Your task to perform on an android device: What's the latest news in cosmology? Image 0: 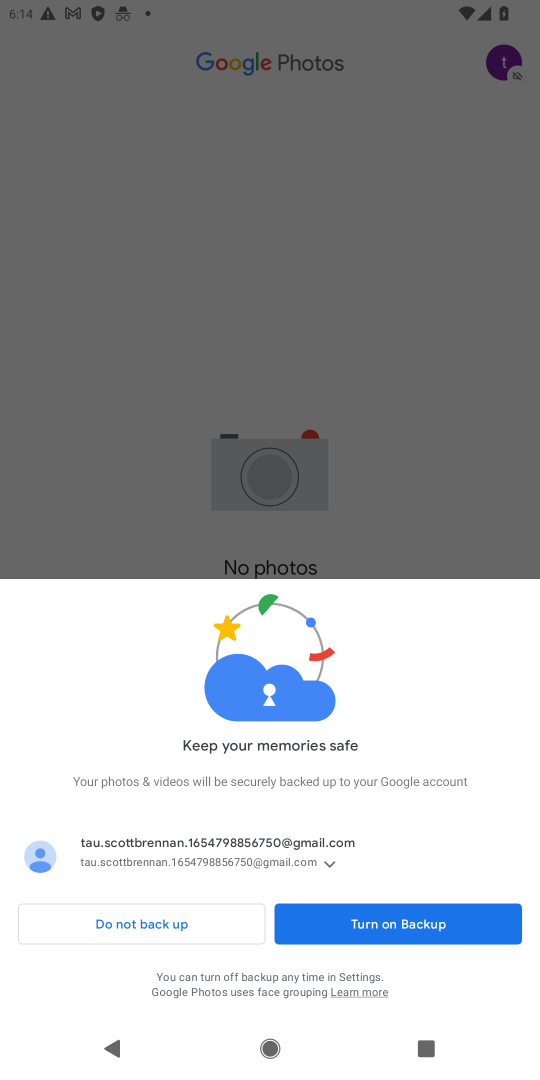
Step 0: press home button
Your task to perform on an android device: What's the latest news in cosmology? Image 1: 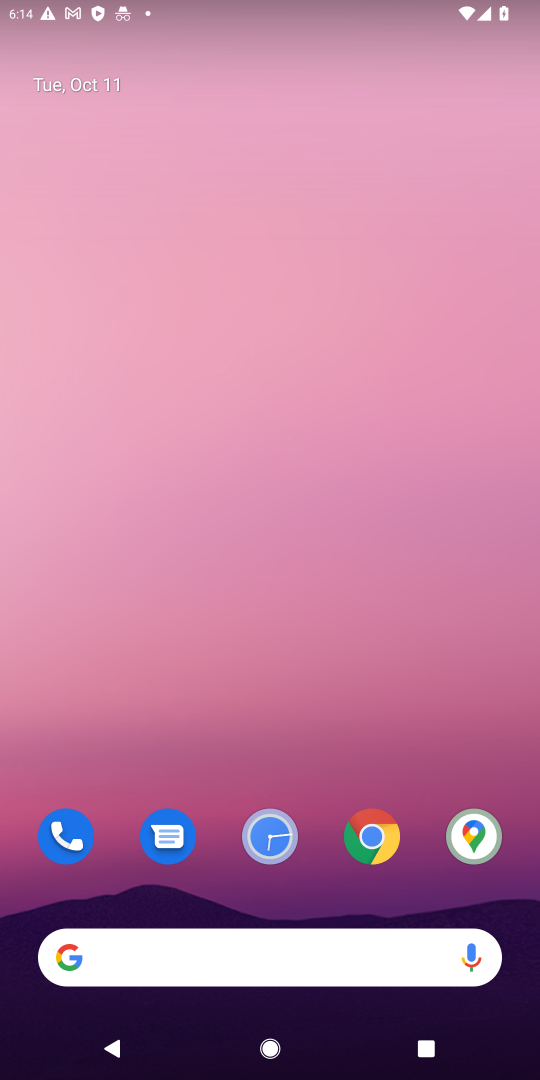
Step 1: click (371, 837)
Your task to perform on an android device: What's the latest news in cosmology? Image 2: 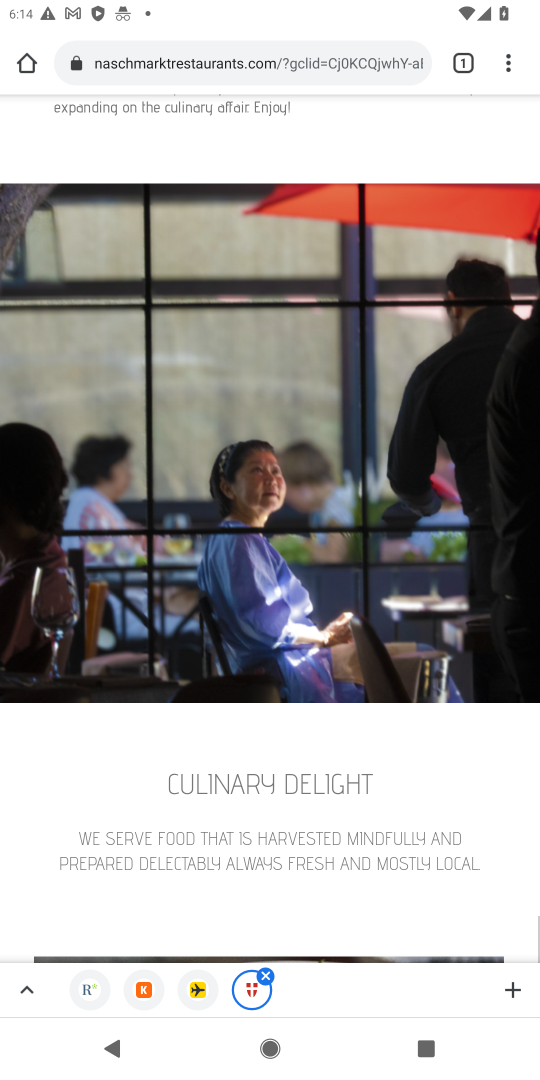
Step 2: click (226, 45)
Your task to perform on an android device: What's the latest news in cosmology? Image 3: 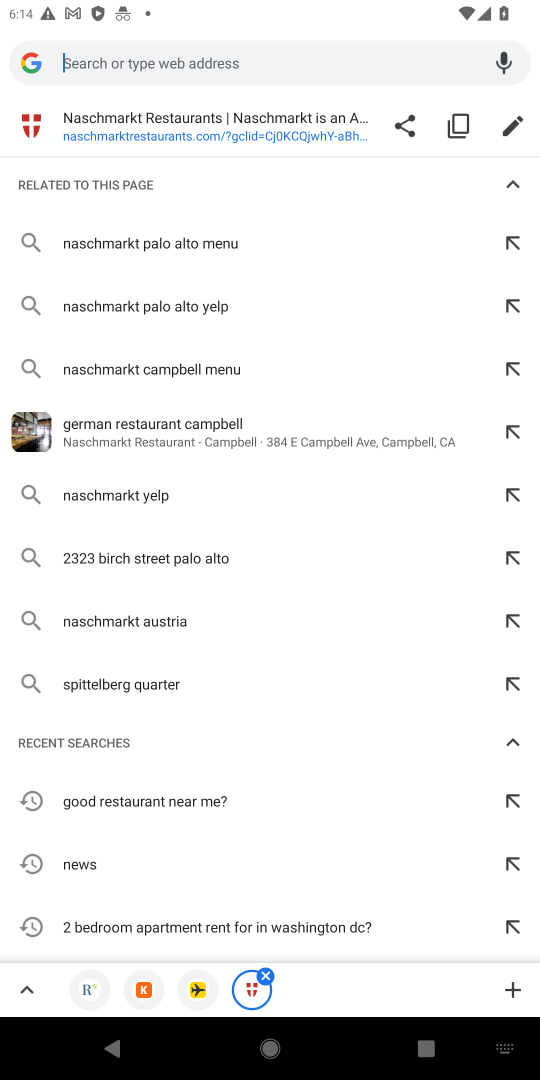
Step 3: type "cosmology news"
Your task to perform on an android device: What's the latest news in cosmology? Image 4: 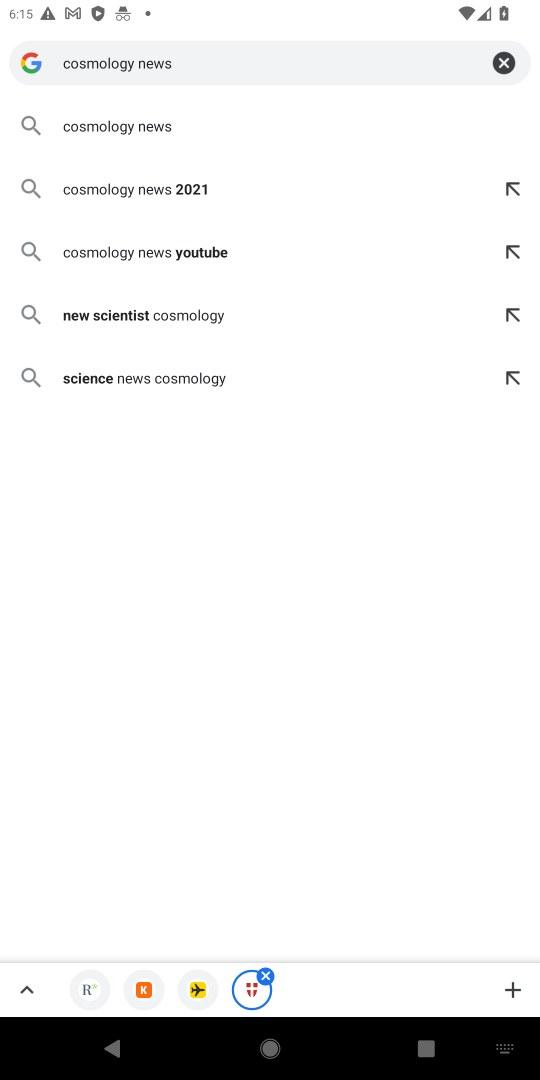
Step 4: click (92, 121)
Your task to perform on an android device: What's the latest news in cosmology? Image 5: 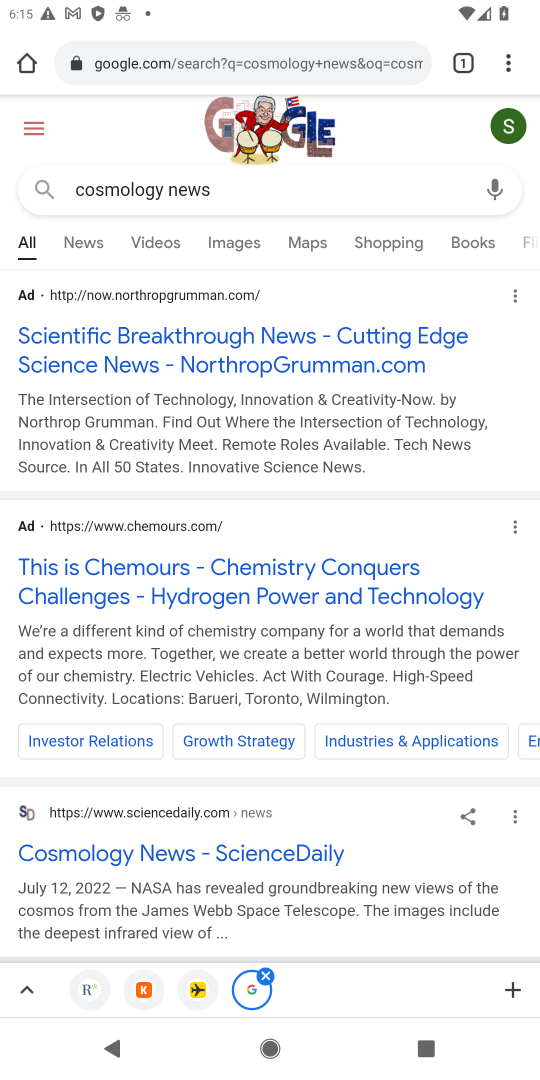
Step 5: click (149, 841)
Your task to perform on an android device: What's the latest news in cosmology? Image 6: 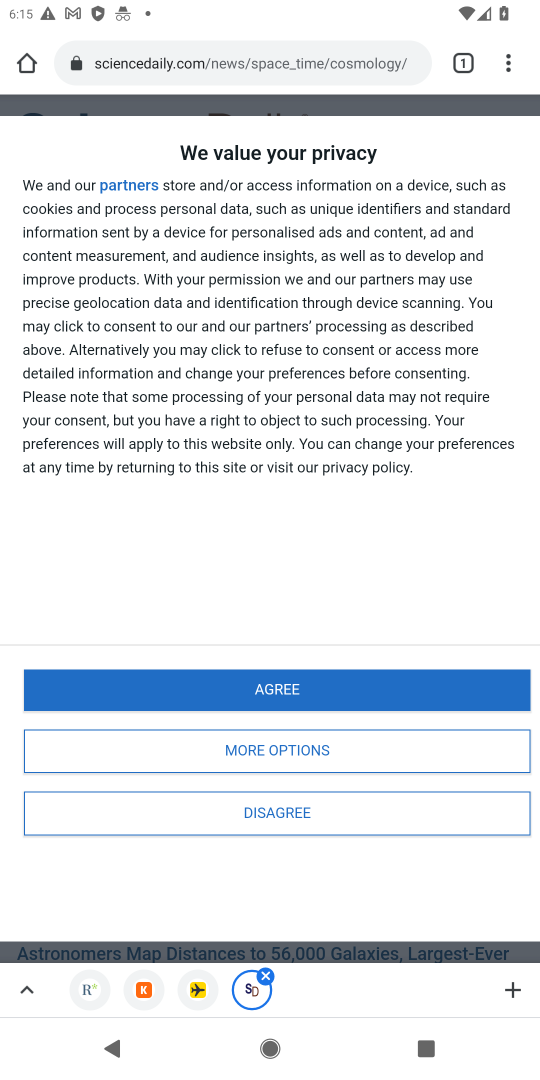
Step 6: click (281, 691)
Your task to perform on an android device: What's the latest news in cosmology? Image 7: 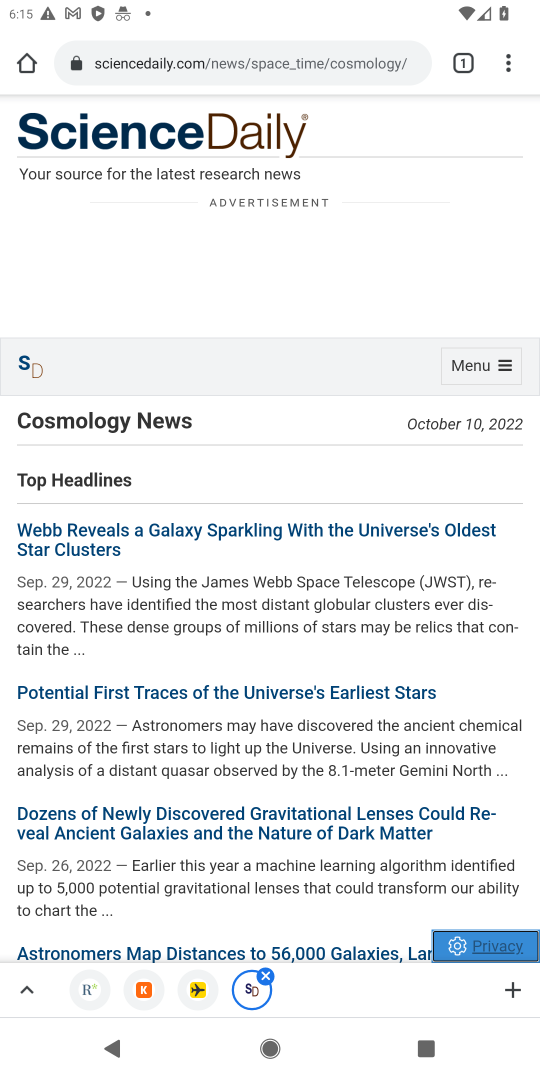
Step 7: drag from (226, 650) to (237, 284)
Your task to perform on an android device: What's the latest news in cosmology? Image 8: 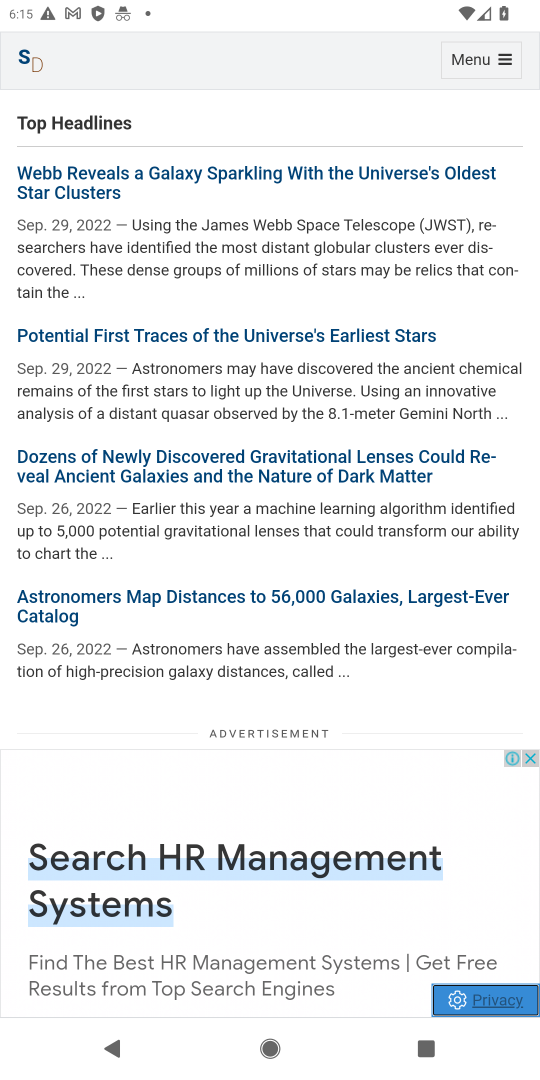
Step 8: click (157, 181)
Your task to perform on an android device: What's the latest news in cosmology? Image 9: 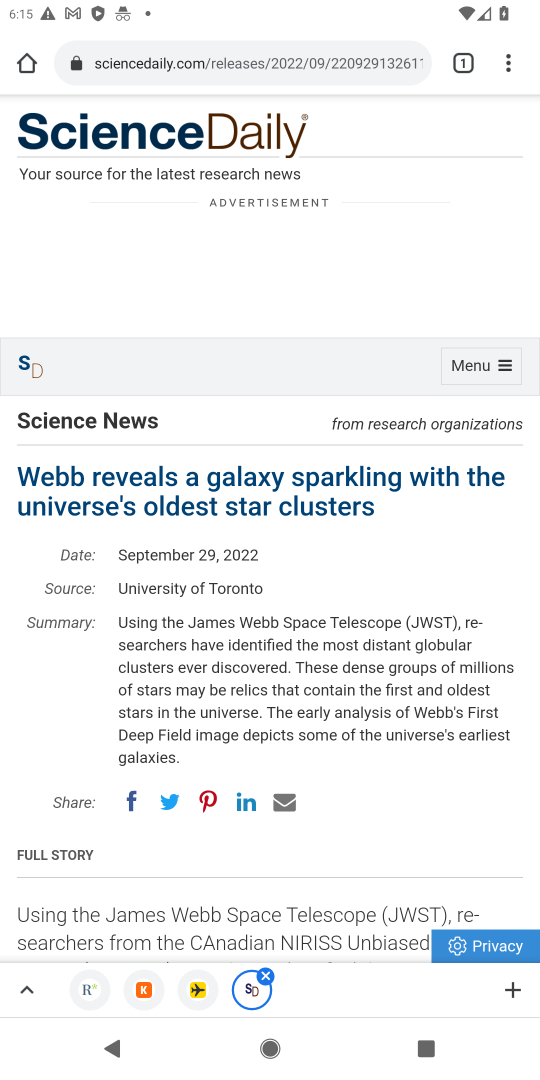
Step 9: task complete